Your task to perform on an android device: What's on my calendar today? Image 0: 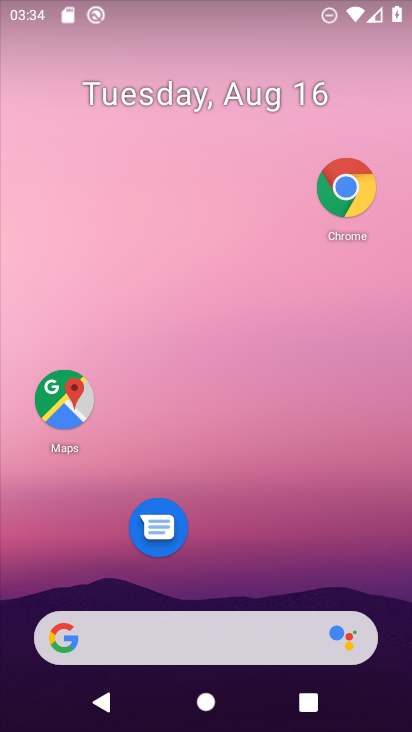
Step 0: drag from (210, 594) to (87, 6)
Your task to perform on an android device: What's on my calendar today? Image 1: 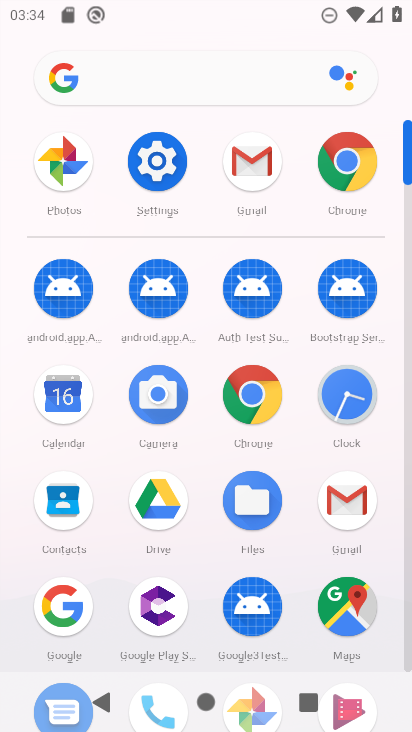
Step 1: click (59, 394)
Your task to perform on an android device: What's on my calendar today? Image 2: 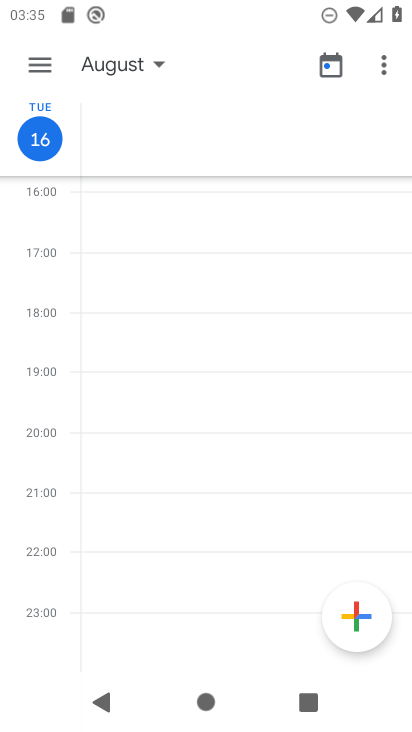
Step 2: task complete